Your task to perform on an android device: Open notification settings Image 0: 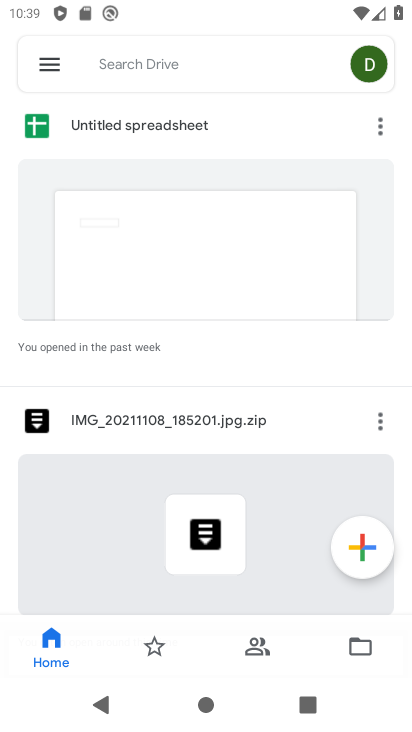
Step 0: press home button
Your task to perform on an android device: Open notification settings Image 1: 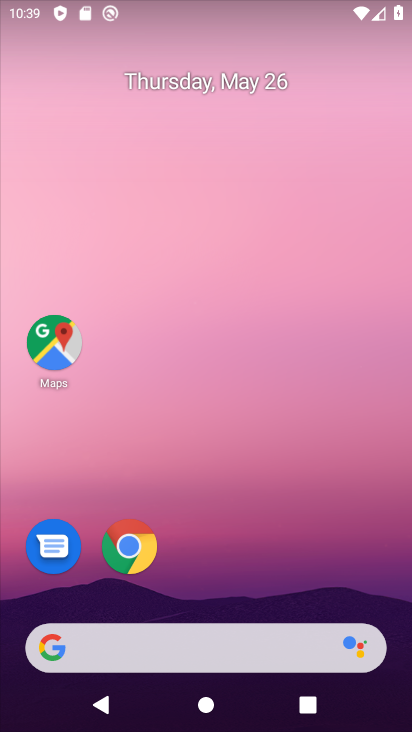
Step 1: drag from (254, 585) to (271, 160)
Your task to perform on an android device: Open notification settings Image 2: 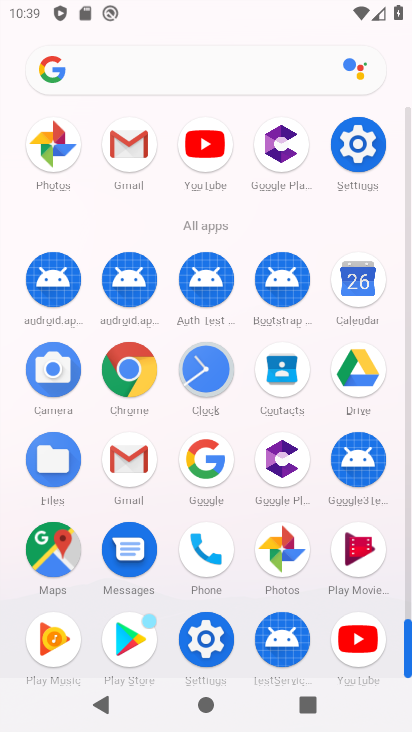
Step 2: drag from (226, 226) to (250, 94)
Your task to perform on an android device: Open notification settings Image 3: 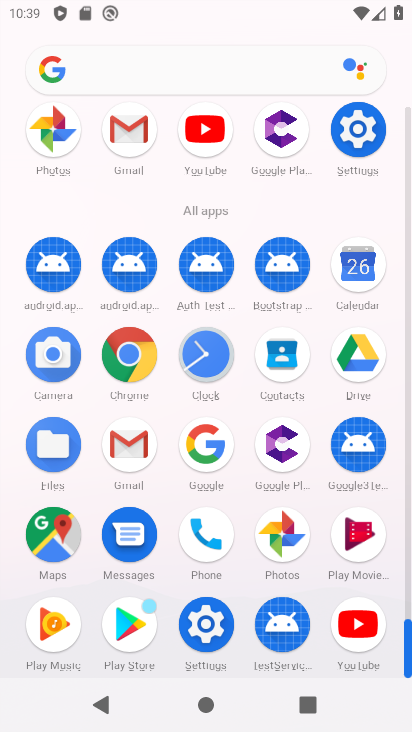
Step 3: click (210, 630)
Your task to perform on an android device: Open notification settings Image 4: 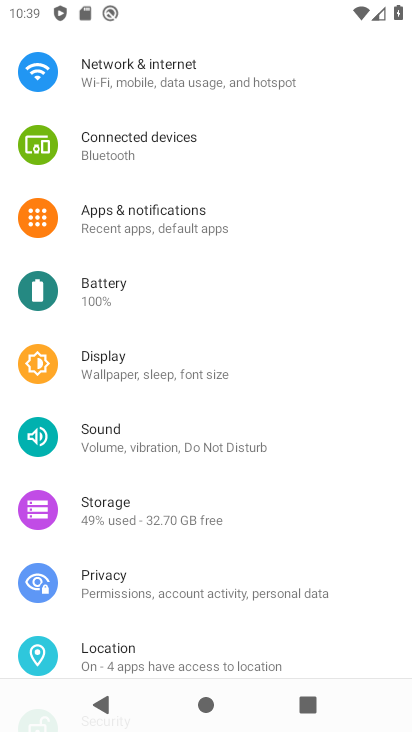
Step 4: click (215, 242)
Your task to perform on an android device: Open notification settings Image 5: 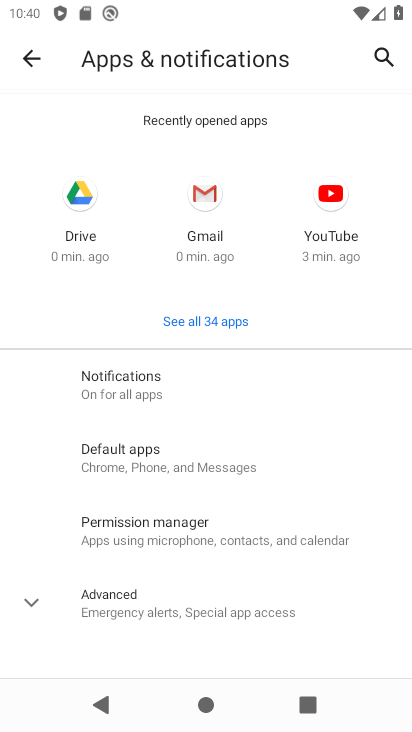
Step 5: click (252, 408)
Your task to perform on an android device: Open notification settings Image 6: 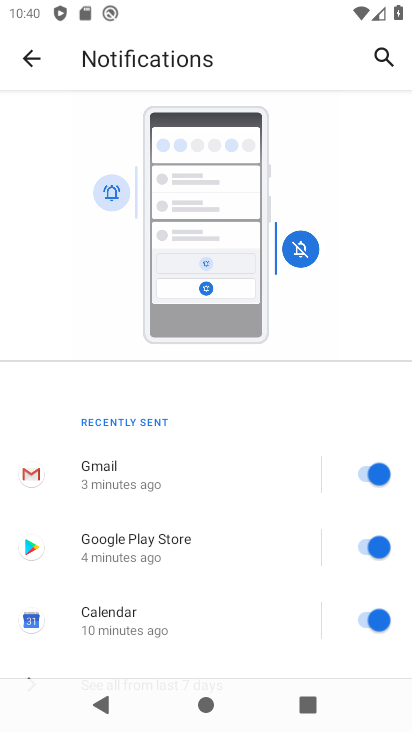
Step 6: task complete